Your task to perform on an android device: clear history in the chrome app Image 0: 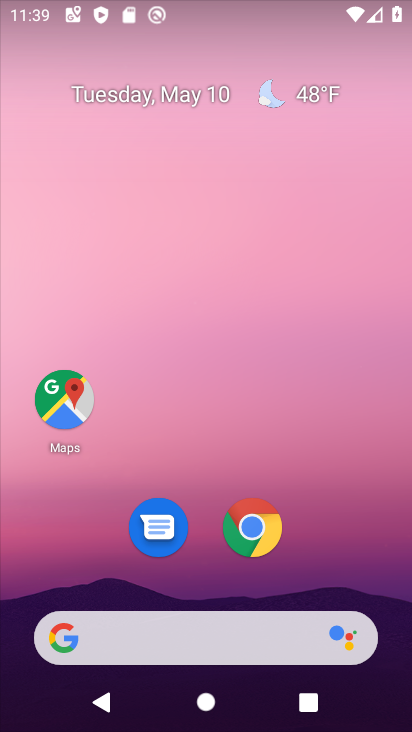
Step 0: click (251, 535)
Your task to perform on an android device: clear history in the chrome app Image 1: 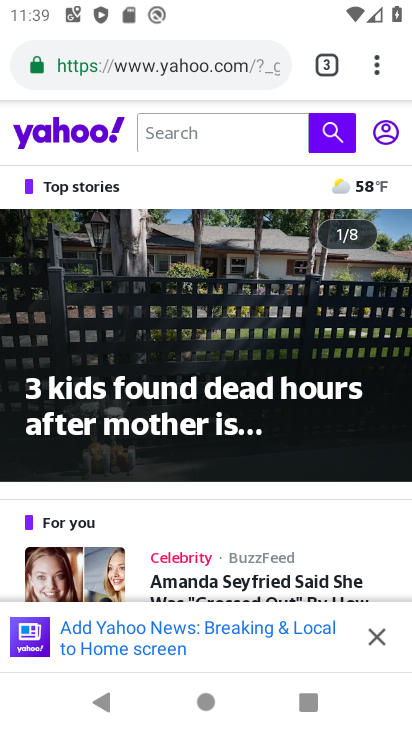
Step 1: click (376, 72)
Your task to perform on an android device: clear history in the chrome app Image 2: 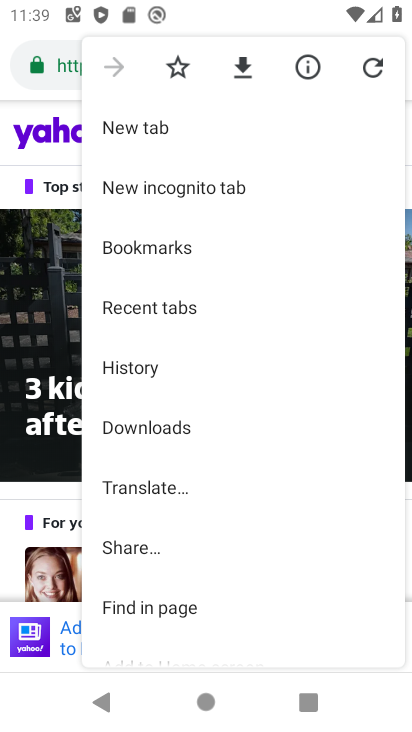
Step 2: drag from (183, 619) to (169, 433)
Your task to perform on an android device: clear history in the chrome app Image 3: 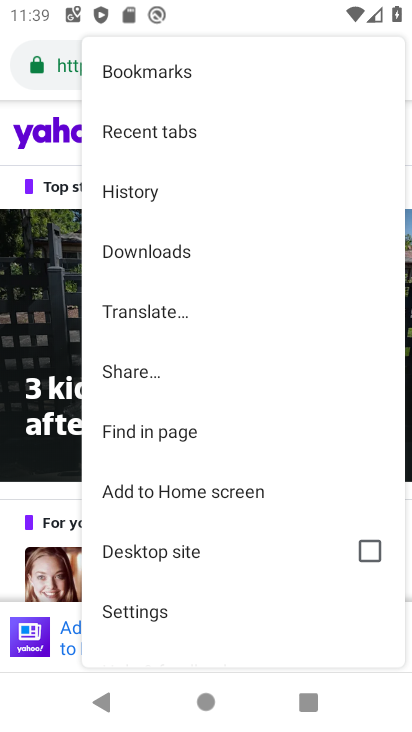
Step 3: click (130, 184)
Your task to perform on an android device: clear history in the chrome app Image 4: 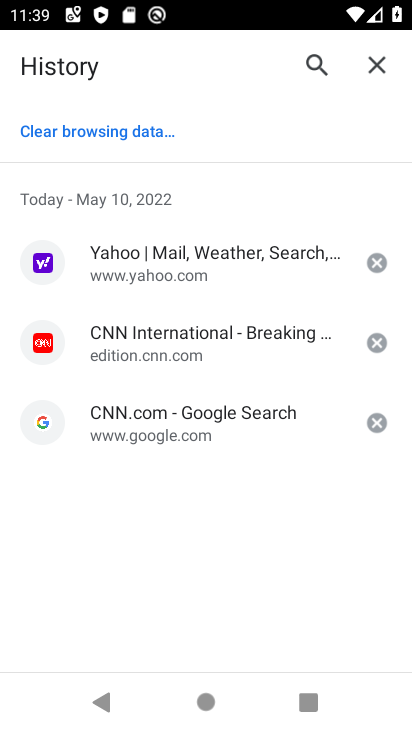
Step 4: click (93, 130)
Your task to perform on an android device: clear history in the chrome app Image 5: 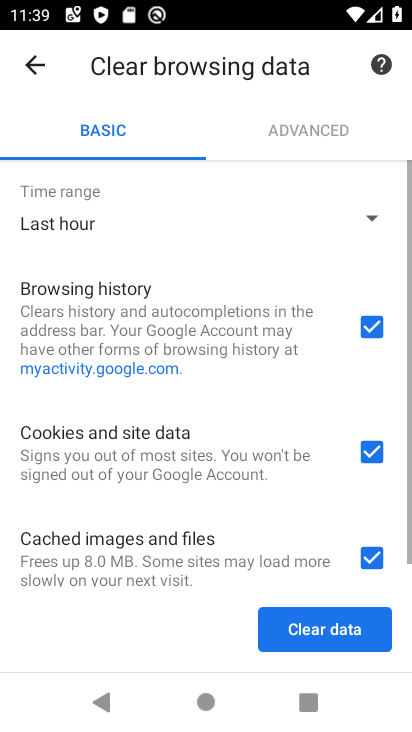
Step 5: click (369, 538)
Your task to perform on an android device: clear history in the chrome app Image 6: 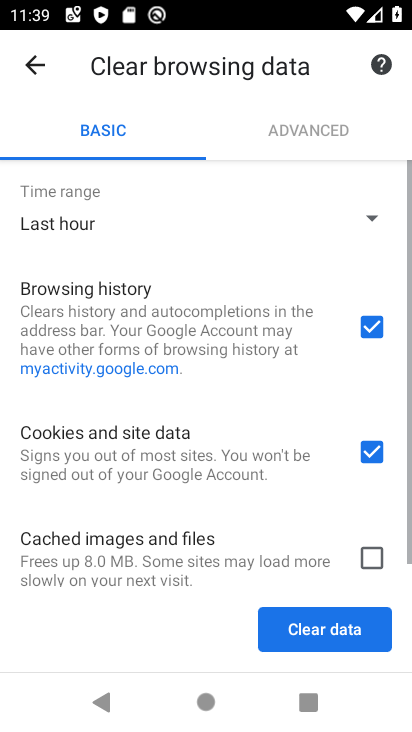
Step 6: click (364, 457)
Your task to perform on an android device: clear history in the chrome app Image 7: 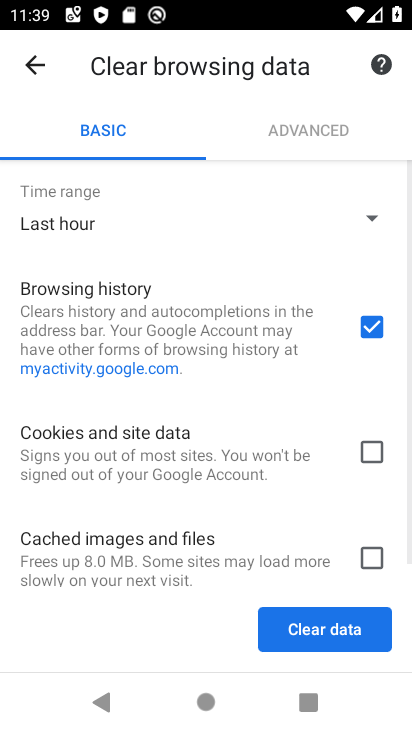
Step 7: click (306, 628)
Your task to perform on an android device: clear history in the chrome app Image 8: 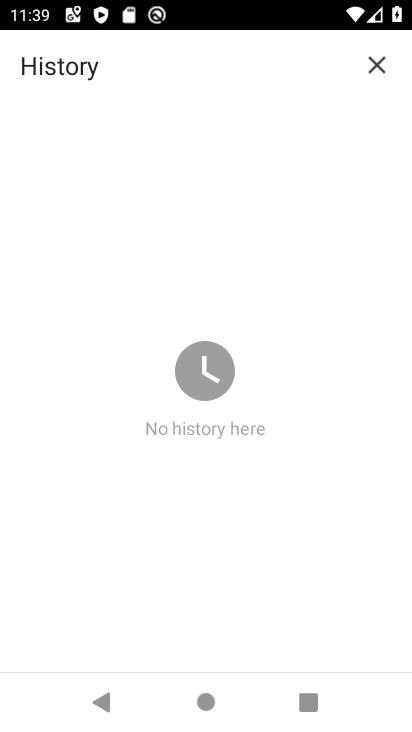
Step 8: task complete